Your task to perform on an android device: Open maps Image 0: 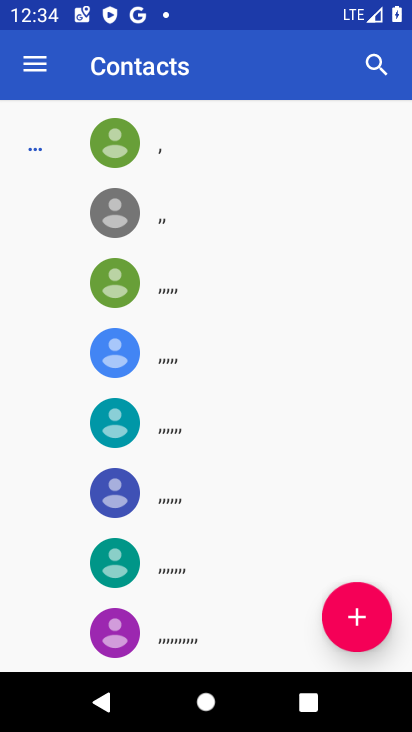
Step 0: press back button
Your task to perform on an android device: Open maps Image 1: 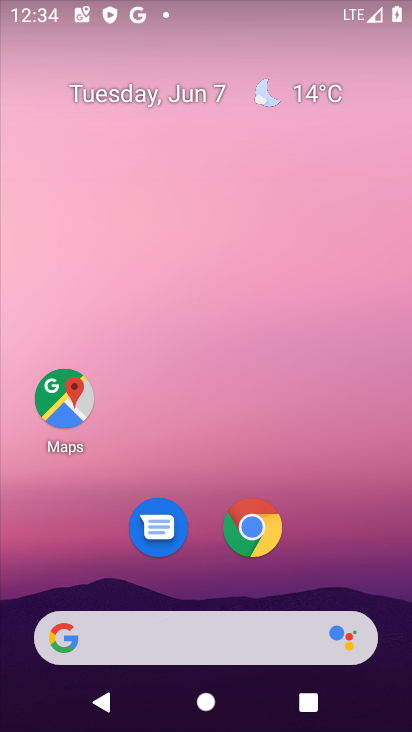
Step 1: drag from (301, 420) to (269, 24)
Your task to perform on an android device: Open maps Image 2: 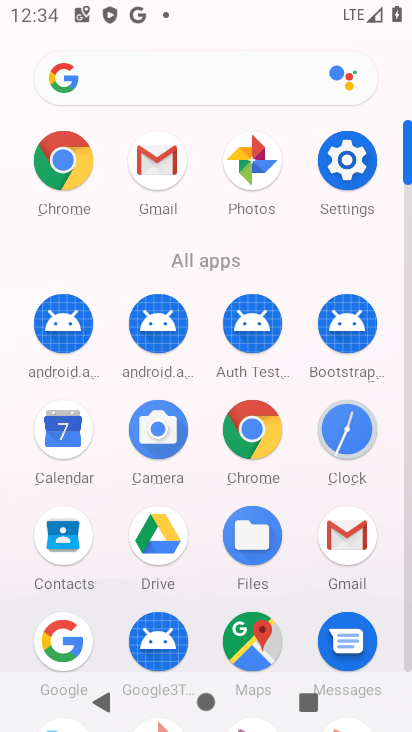
Step 2: click (248, 638)
Your task to perform on an android device: Open maps Image 3: 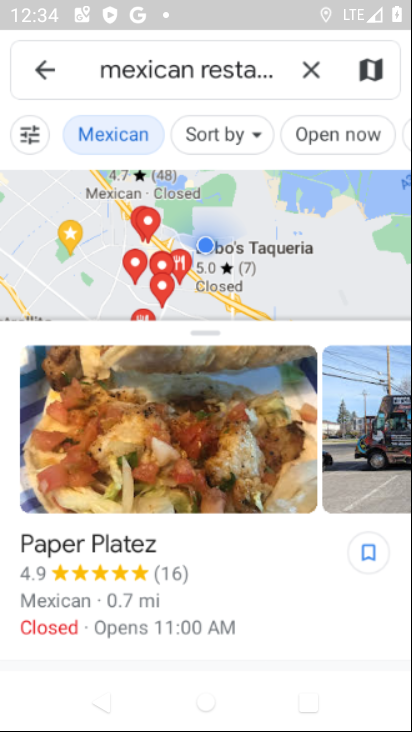
Step 3: click (313, 69)
Your task to perform on an android device: Open maps Image 4: 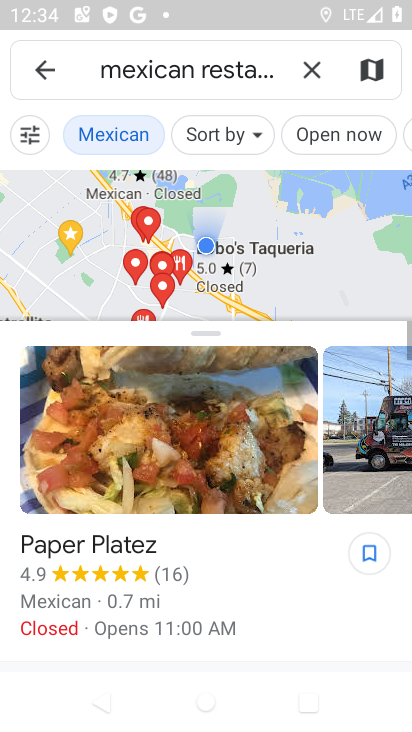
Step 4: click (46, 59)
Your task to perform on an android device: Open maps Image 5: 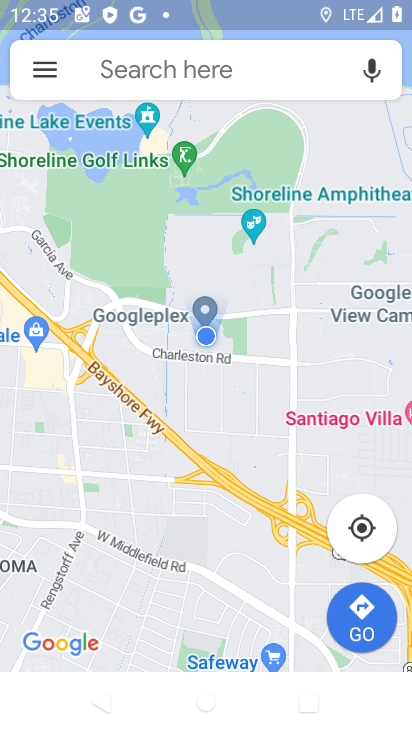
Step 5: task complete